Your task to perform on an android device: toggle translation in the chrome app Image 0: 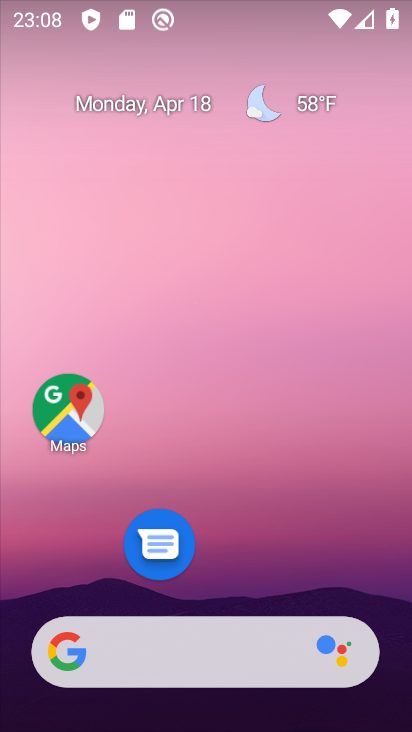
Step 0: drag from (249, 570) to (218, 56)
Your task to perform on an android device: toggle translation in the chrome app Image 1: 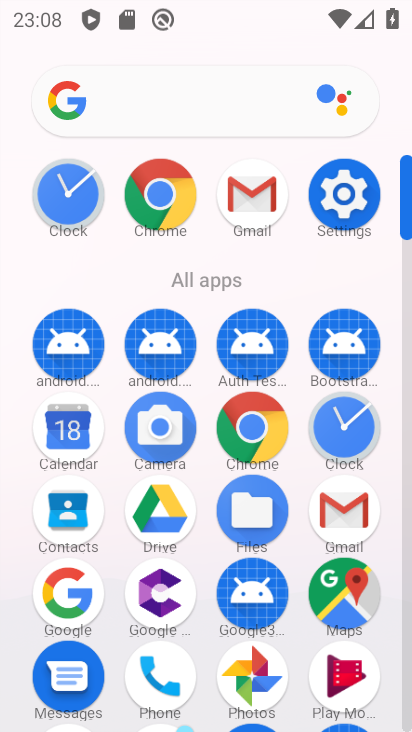
Step 1: click (155, 188)
Your task to perform on an android device: toggle translation in the chrome app Image 2: 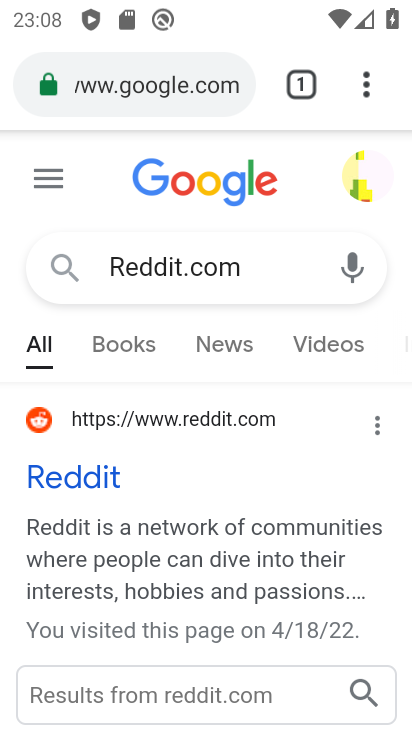
Step 2: click (370, 85)
Your task to perform on an android device: toggle translation in the chrome app Image 3: 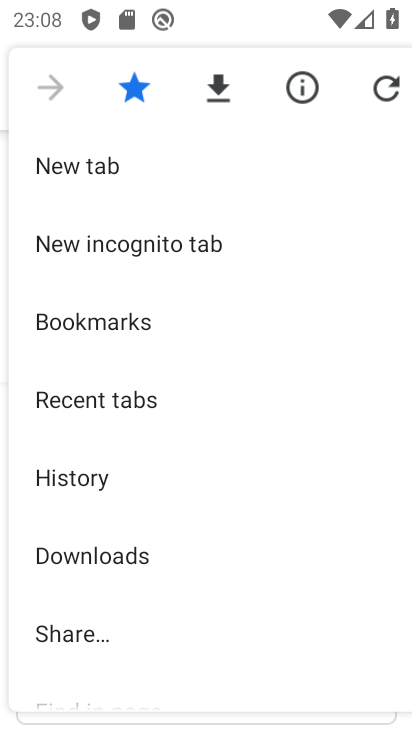
Step 3: drag from (149, 478) to (186, 330)
Your task to perform on an android device: toggle translation in the chrome app Image 4: 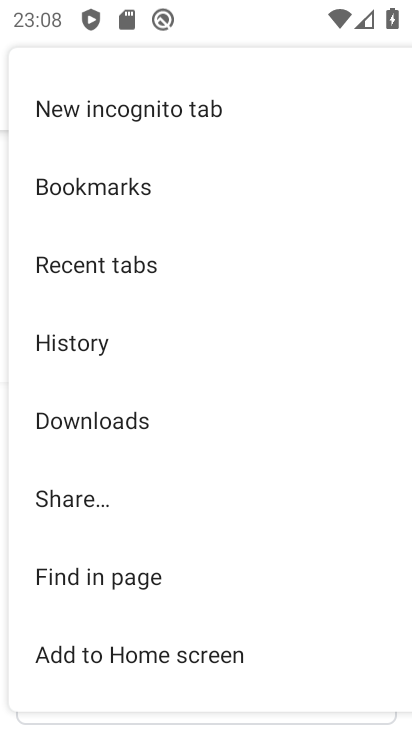
Step 4: drag from (183, 487) to (182, 380)
Your task to perform on an android device: toggle translation in the chrome app Image 5: 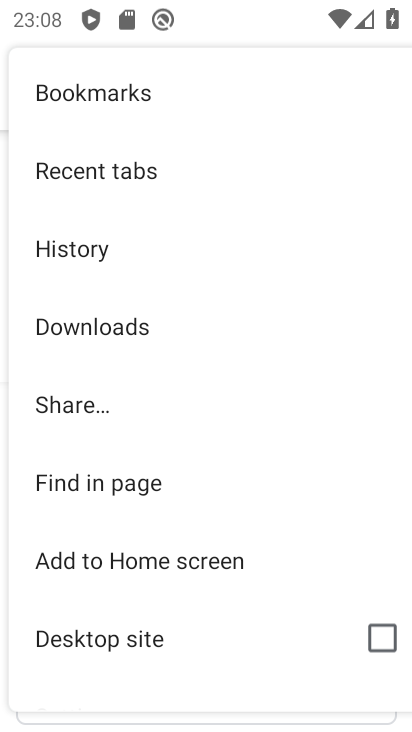
Step 5: drag from (184, 504) to (216, 390)
Your task to perform on an android device: toggle translation in the chrome app Image 6: 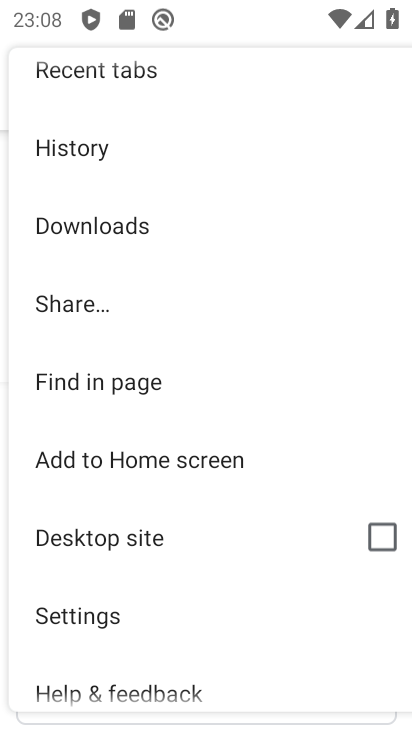
Step 6: click (87, 615)
Your task to perform on an android device: toggle translation in the chrome app Image 7: 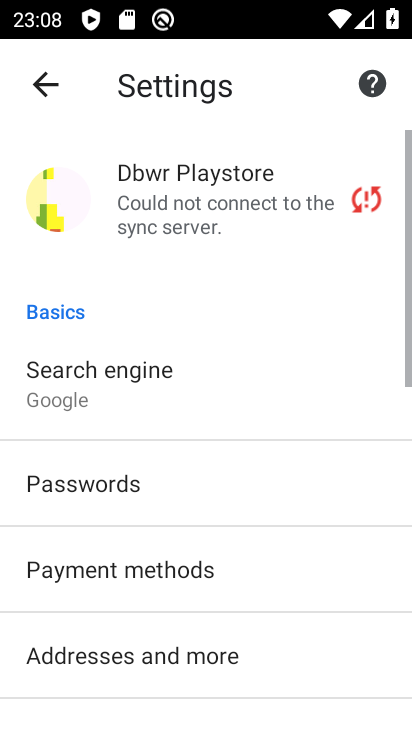
Step 7: drag from (201, 576) to (232, 445)
Your task to perform on an android device: toggle translation in the chrome app Image 8: 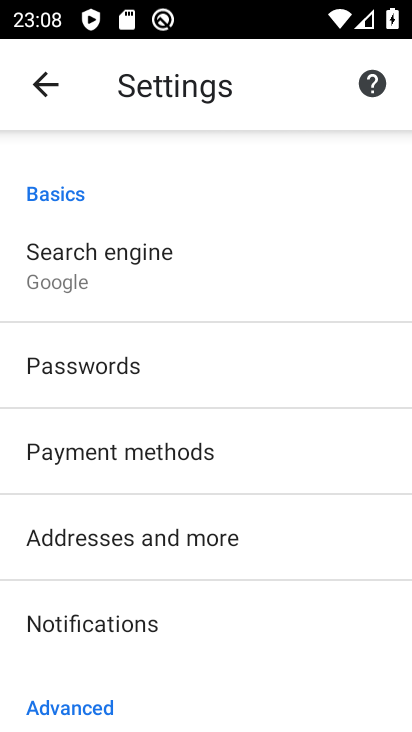
Step 8: drag from (188, 570) to (209, 485)
Your task to perform on an android device: toggle translation in the chrome app Image 9: 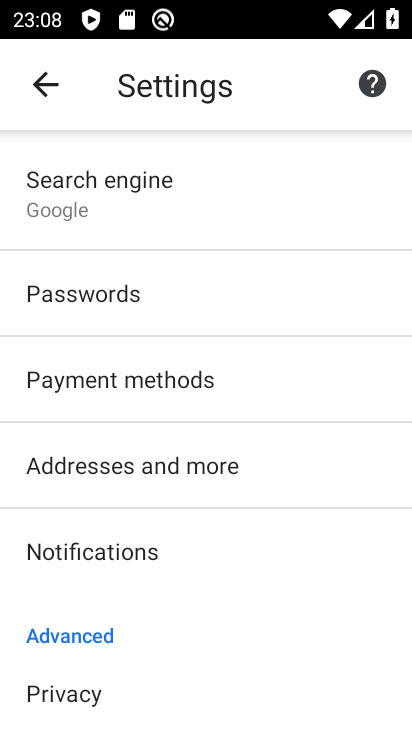
Step 9: drag from (192, 578) to (209, 482)
Your task to perform on an android device: toggle translation in the chrome app Image 10: 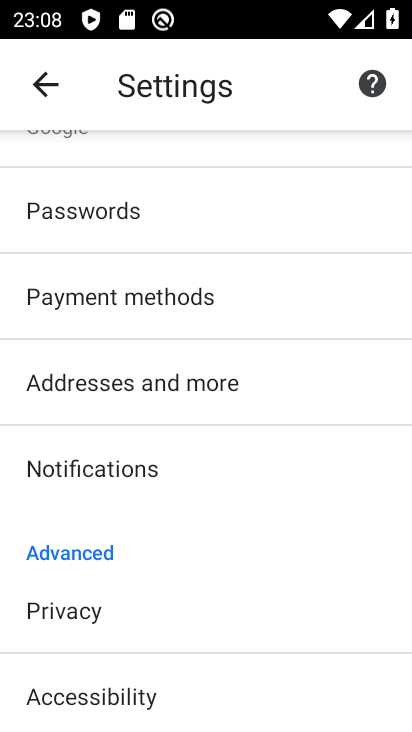
Step 10: drag from (191, 591) to (234, 488)
Your task to perform on an android device: toggle translation in the chrome app Image 11: 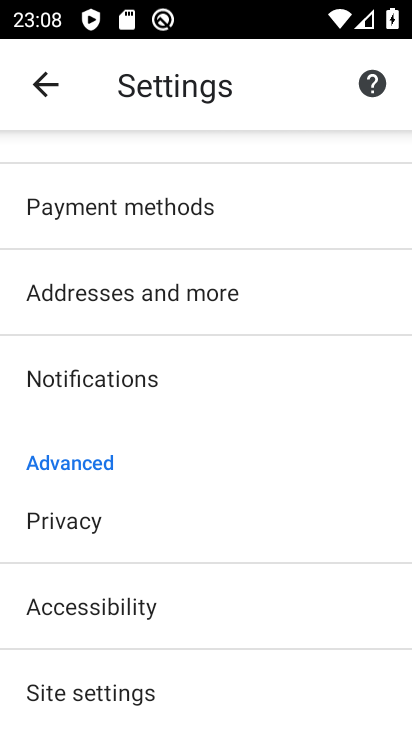
Step 11: drag from (190, 611) to (232, 509)
Your task to perform on an android device: toggle translation in the chrome app Image 12: 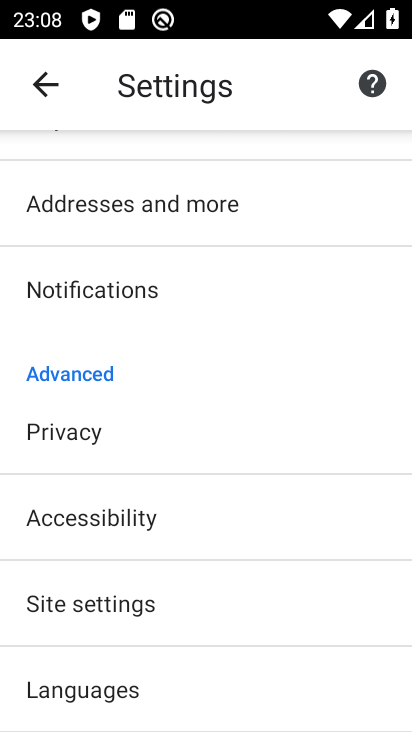
Step 12: drag from (216, 585) to (262, 503)
Your task to perform on an android device: toggle translation in the chrome app Image 13: 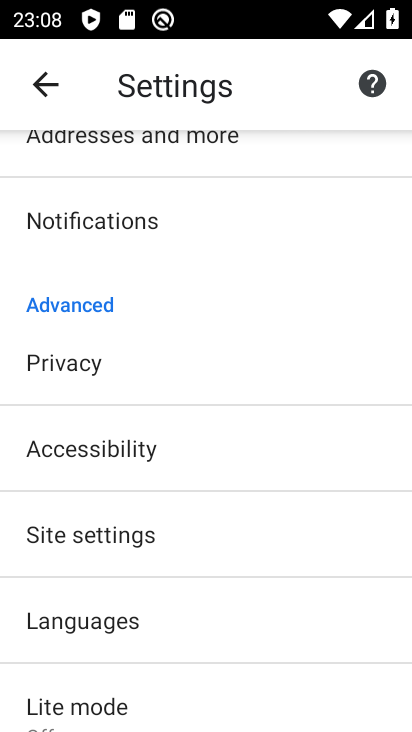
Step 13: click (109, 633)
Your task to perform on an android device: toggle translation in the chrome app Image 14: 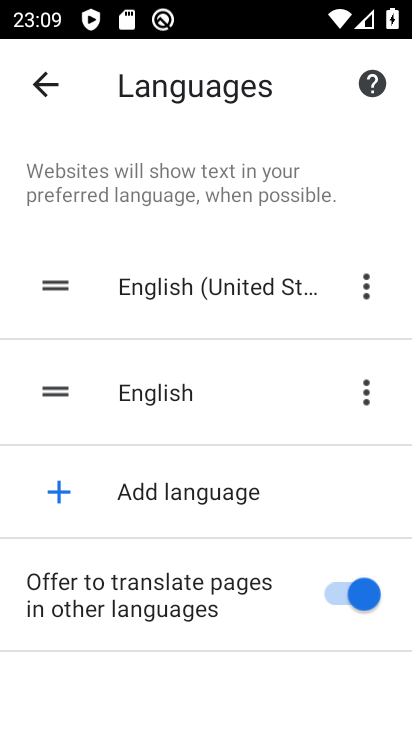
Step 14: click (337, 598)
Your task to perform on an android device: toggle translation in the chrome app Image 15: 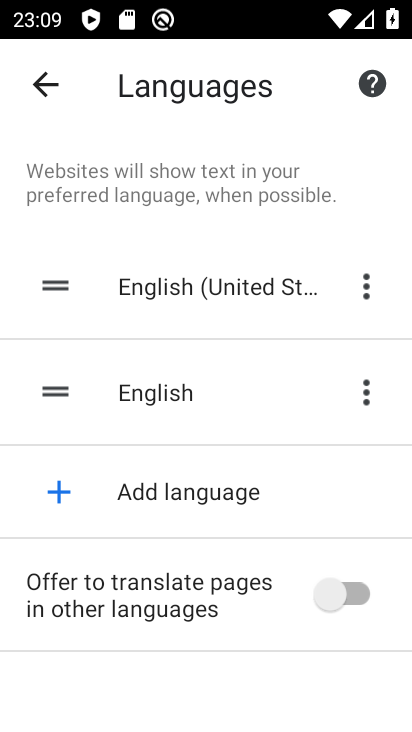
Step 15: task complete